Your task to perform on an android device: Open Google Image 0: 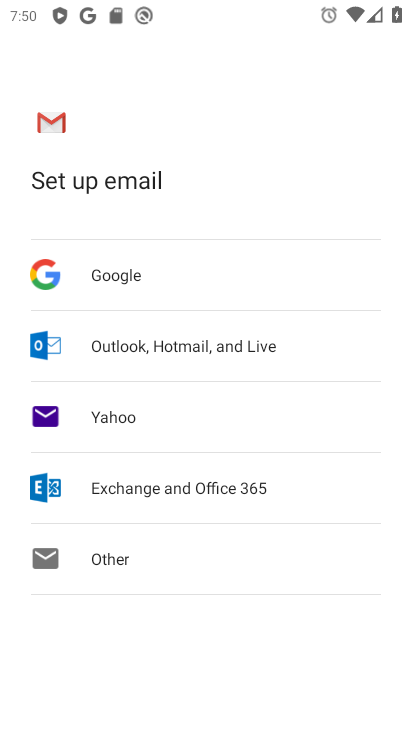
Step 0: press home button
Your task to perform on an android device: Open Google Image 1: 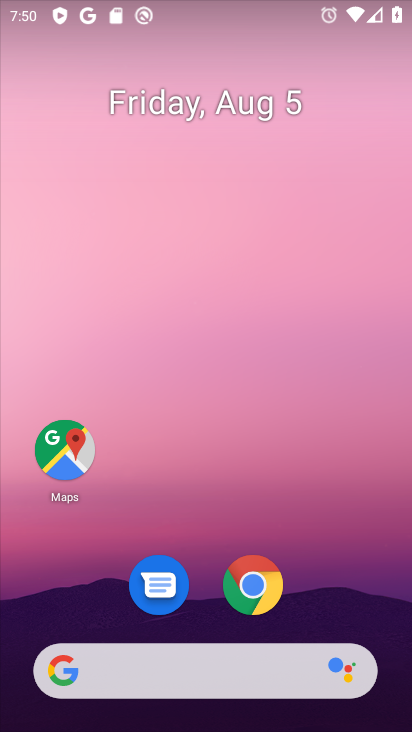
Step 1: click (207, 667)
Your task to perform on an android device: Open Google Image 2: 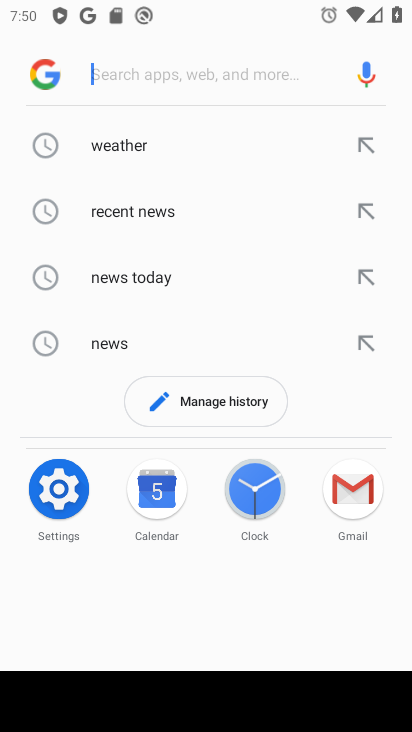
Step 2: click (50, 70)
Your task to perform on an android device: Open Google Image 3: 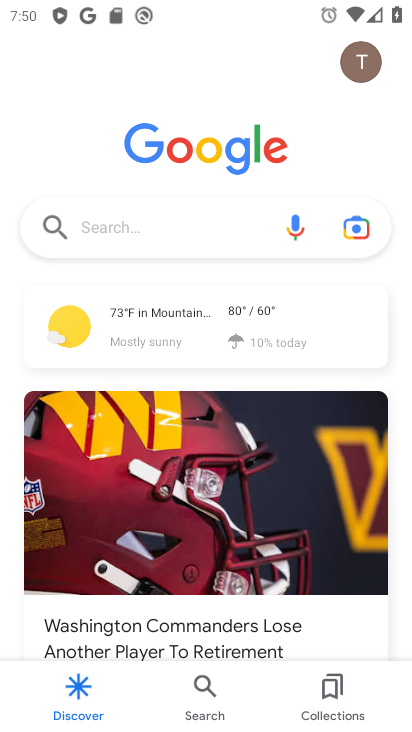
Step 3: task complete